Your task to perform on an android device: open chrome and create a bookmark for the current page Image 0: 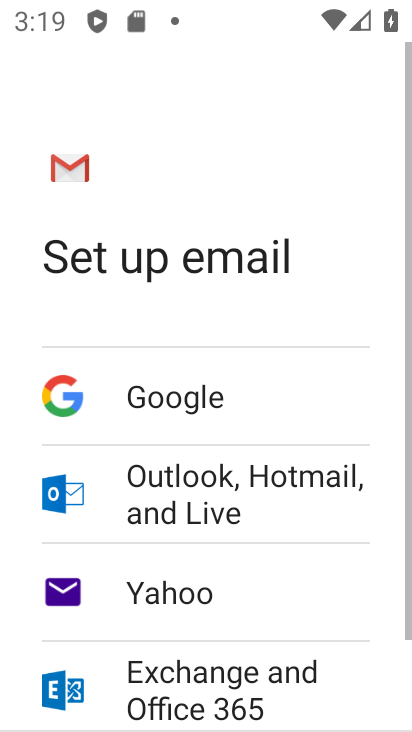
Step 0: press home button
Your task to perform on an android device: open chrome and create a bookmark for the current page Image 1: 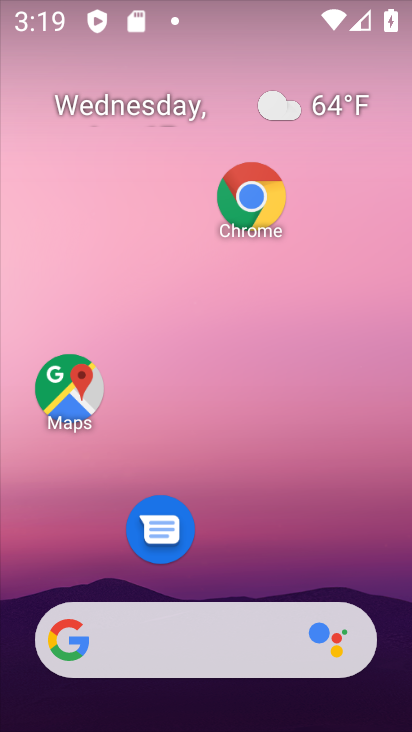
Step 1: click (248, 200)
Your task to perform on an android device: open chrome and create a bookmark for the current page Image 2: 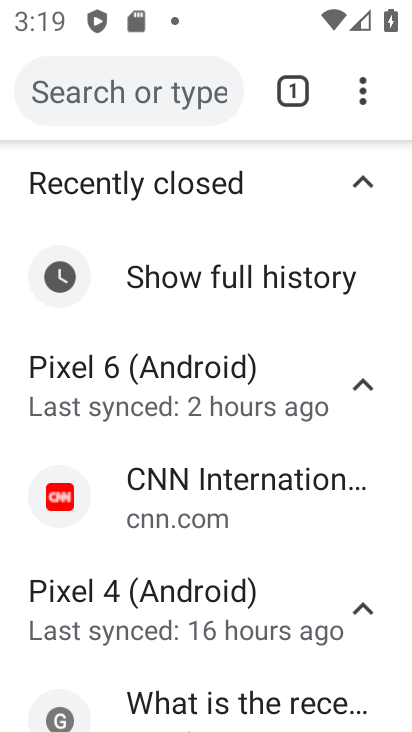
Step 2: task complete